Your task to perform on an android device: find which apps use the phone's location Image 0: 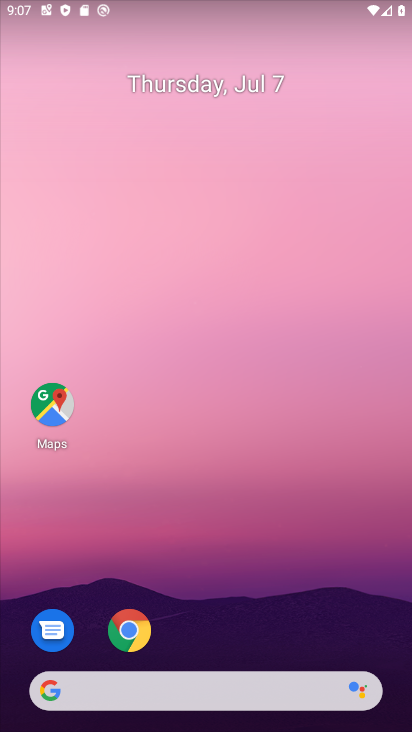
Step 0: drag from (255, 562) to (346, 55)
Your task to perform on an android device: find which apps use the phone's location Image 1: 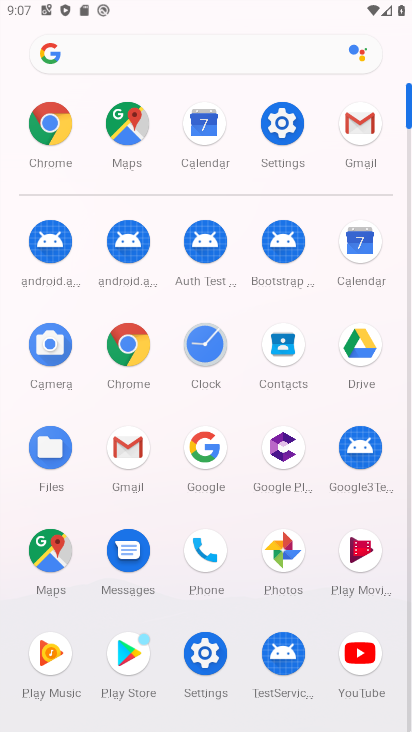
Step 1: click (205, 550)
Your task to perform on an android device: find which apps use the phone's location Image 2: 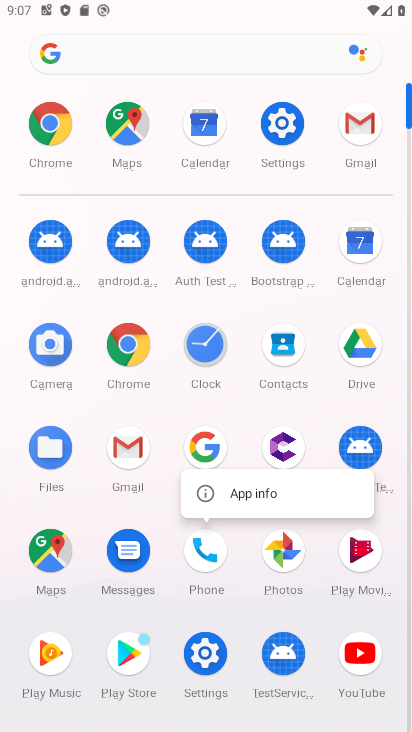
Step 2: click (249, 492)
Your task to perform on an android device: find which apps use the phone's location Image 3: 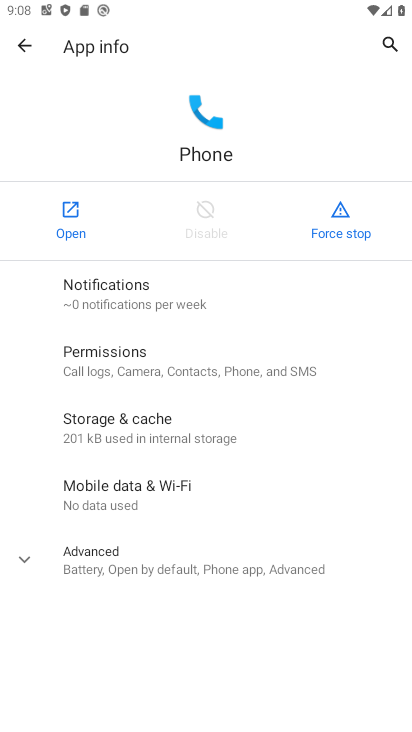
Step 3: click (137, 367)
Your task to perform on an android device: find which apps use the phone's location Image 4: 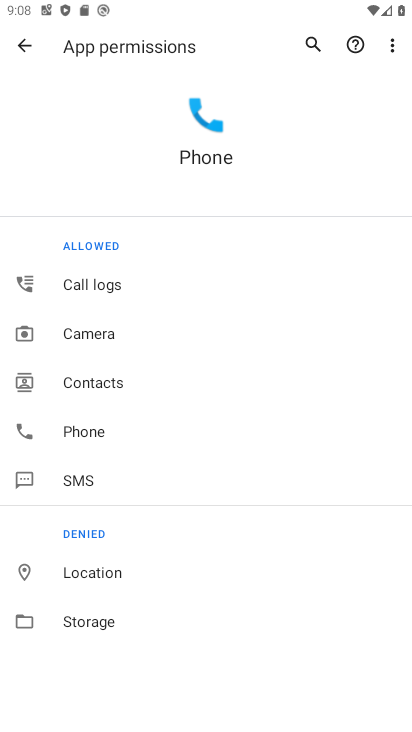
Step 4: click (87, 568)
Your task to perform on an android device: find which apps use the phone's location Image 5: 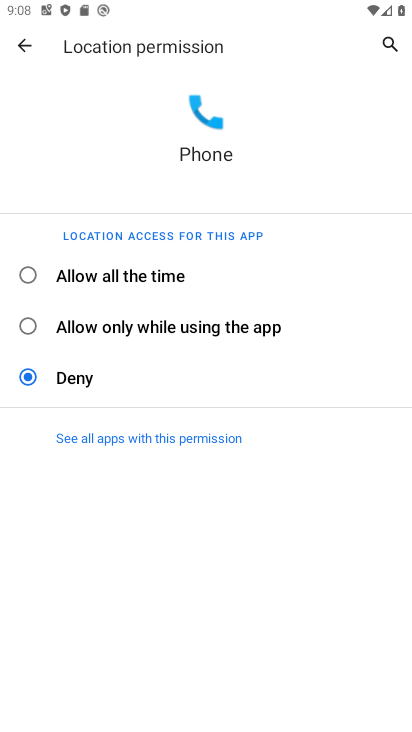
Step 5: task complete